Your task to perform on an android device: turn notification dots off Image 0: 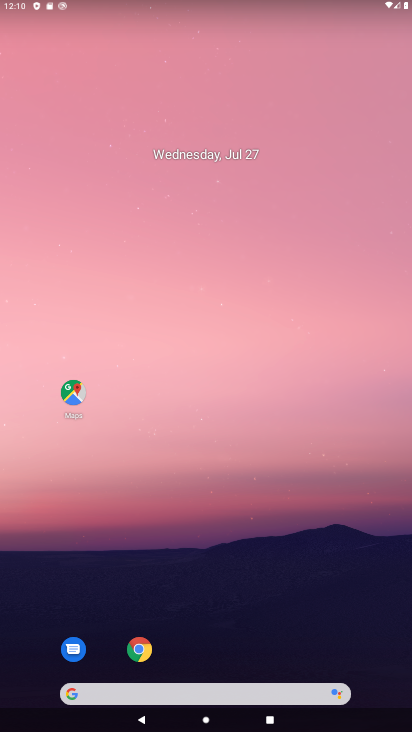
Step 0: drag from (238, 560) to (227, 123)
Your task to perform on an android device: turn notification dots off Image 1: 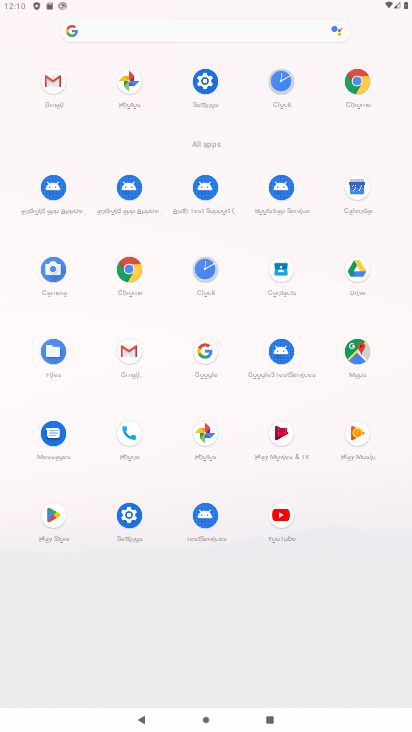
Step 1: click (204, 85)
Your task to perform on an android device: turn notification dots off Image 2: 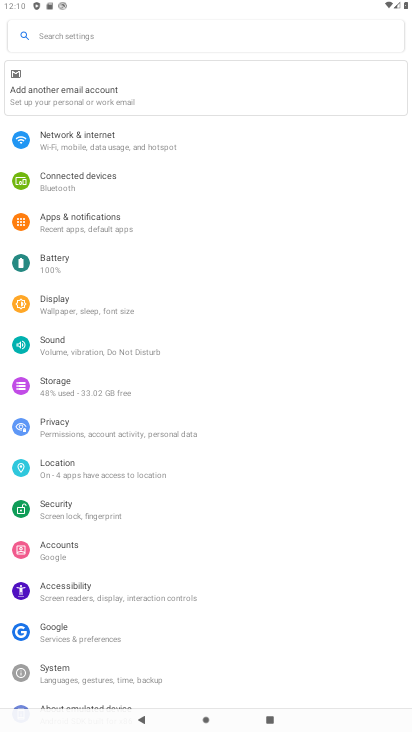
Step 2: click (62, 208)
Your task to perform on an android device: turn notification dots off Image 3: 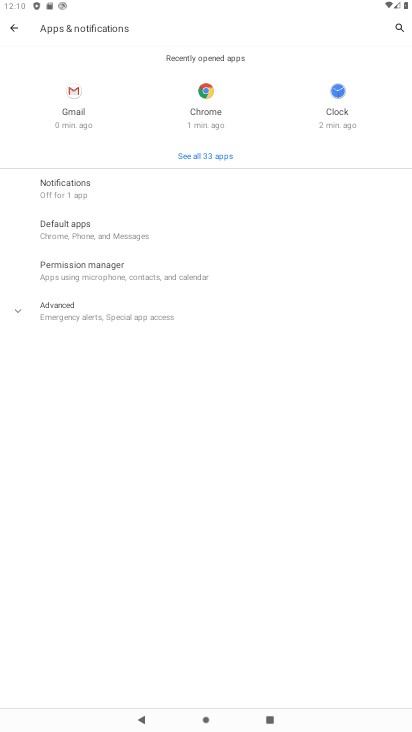
Step 3: click (58, 182)
Your task to perform on an android device: turn notification dots off Image 4: 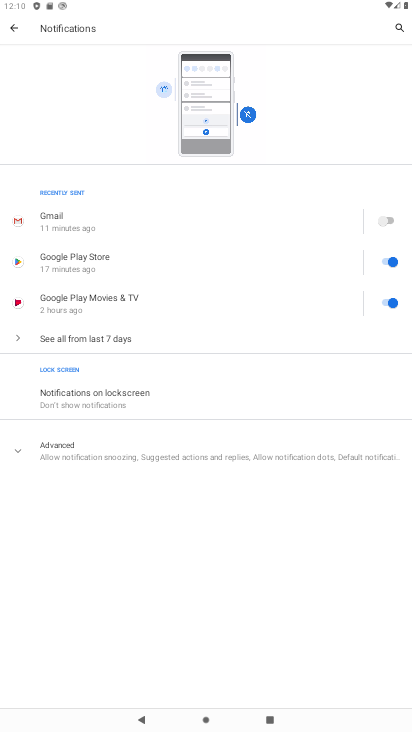
Step 4: click (23, 450)
Your task to perform on an android device: turn notification dots off Image 5: 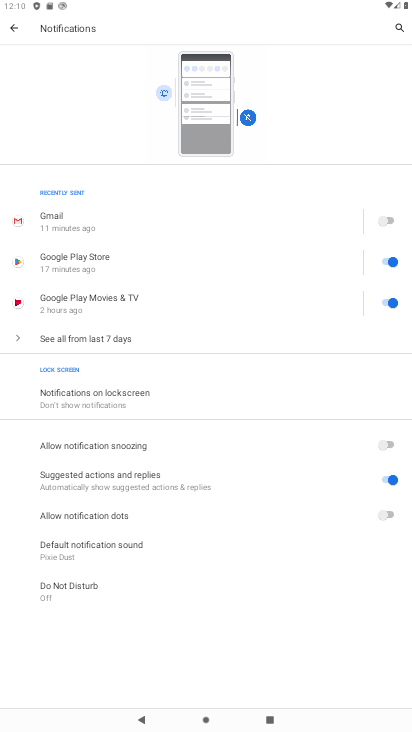
Step 5: task complete